Your task to perform on an android device: clear history in the chrome app Image 0: 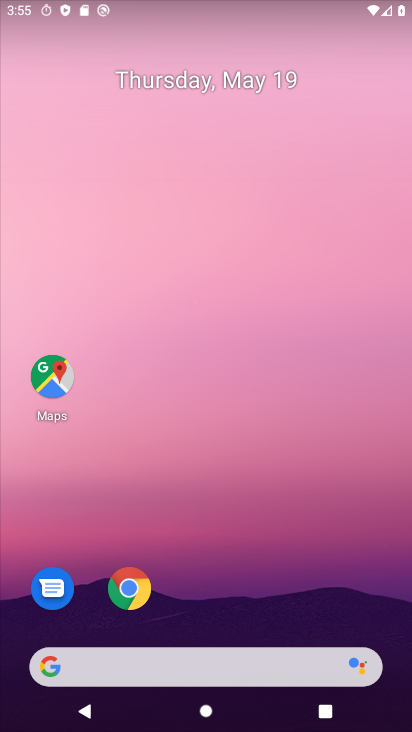
Step 0: click (135, 591)
Your task to perform on an android device: clear history in the chrome app Image 1: 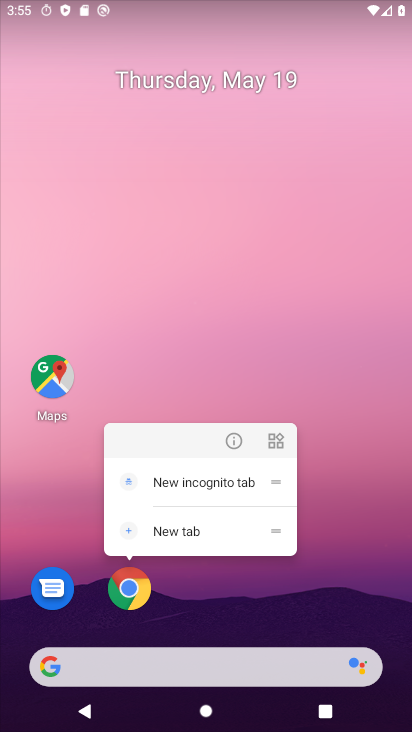
Step 1: click (130, 599)
Your task to perform on an android device: clear history in the chrome app Image 2: 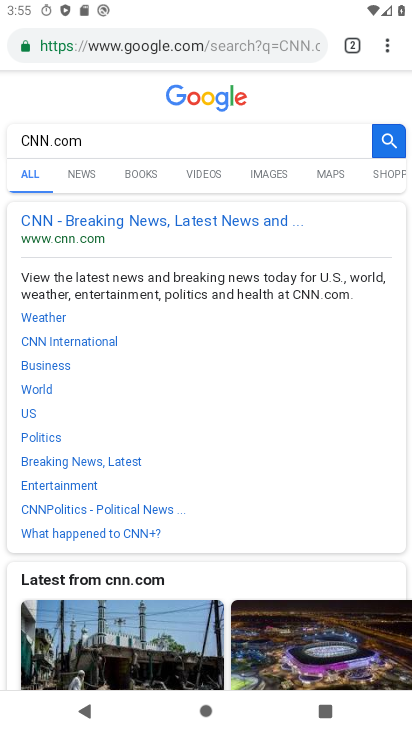
Step 2: click (382, 50)
Your task to perform on an android device: clear history in the chrome app Image 3: 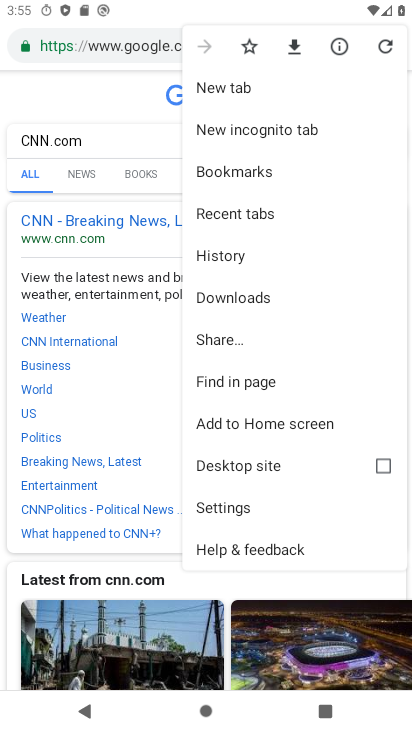
Step 3: click (219, 254)
Your task to perform on an android device: clear history in the chrome app Image 4: 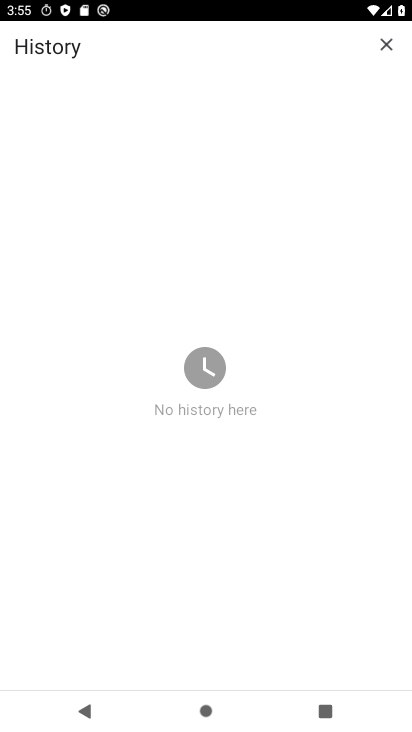
Step 4: task complete